Your task to perform on an android device: refresh tabs in the chrome app Image 0: 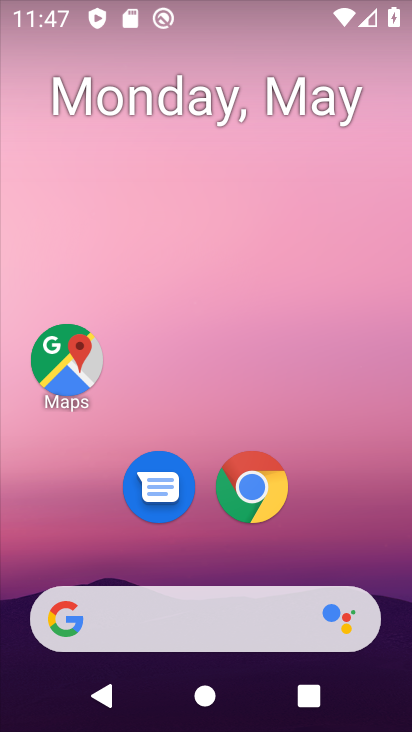
Step 0: click (261, 497)
Your task to perform on an android device: refresh tabs in the chrome app Image 1: 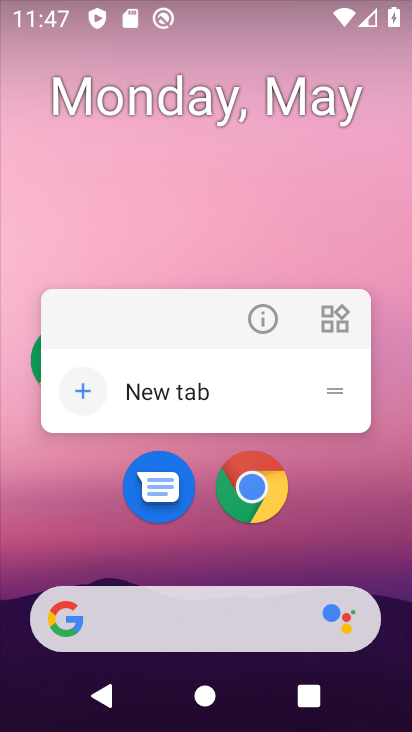
Step 1: click (256, 494)
Your task to perform on an android device: refresh tabs in the chrome app Image 2: 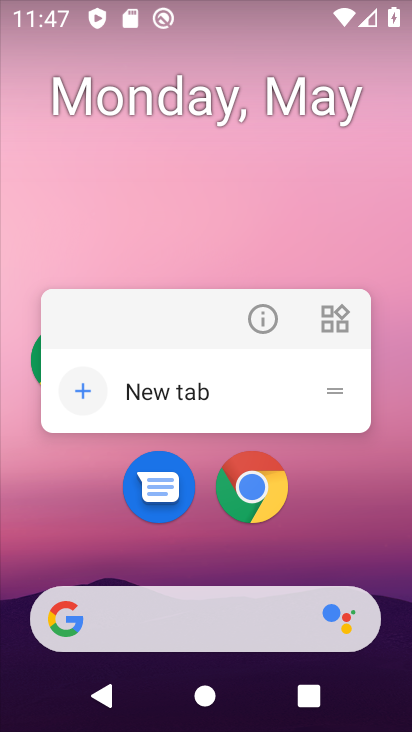
Step 2: click (274, 471)
Your task to perform on an android device: refresh tabs in the chrome app Image 3: 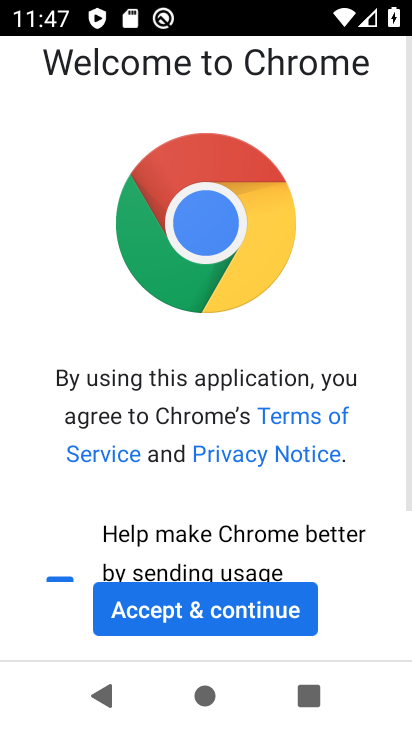
Step 3: click (239, 600)
Your task to perform on an android device: refresh tabs in the chrome app Image 4: 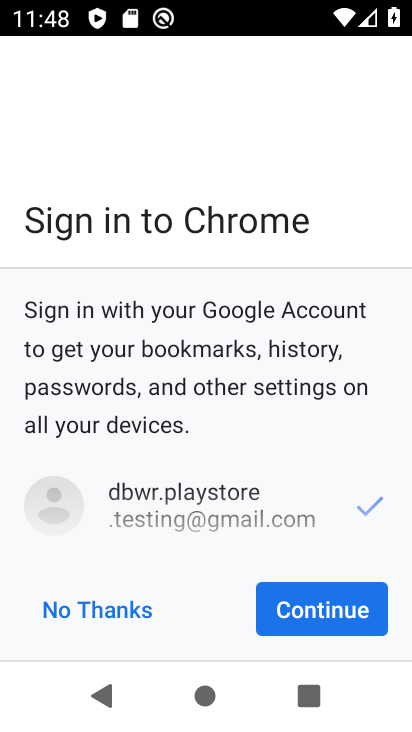
Step 4: click (314, 615)
Your task to perform on an android device: refresh tabs in the chrome app Image 5: 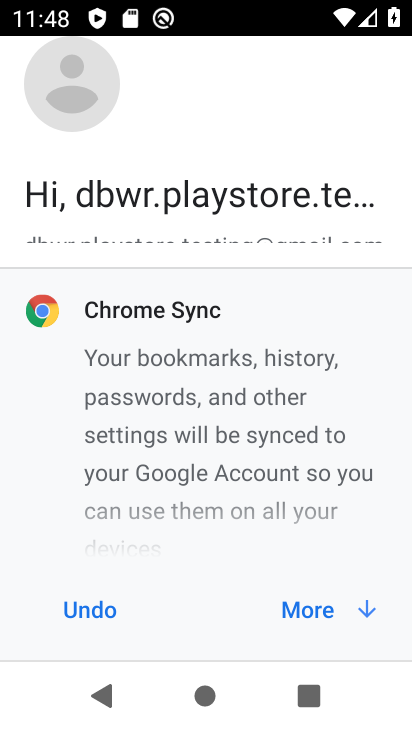
Step 5: click (314, 615)
Your task to perform on an android device: refresh tabs in the chrome app Image 6: 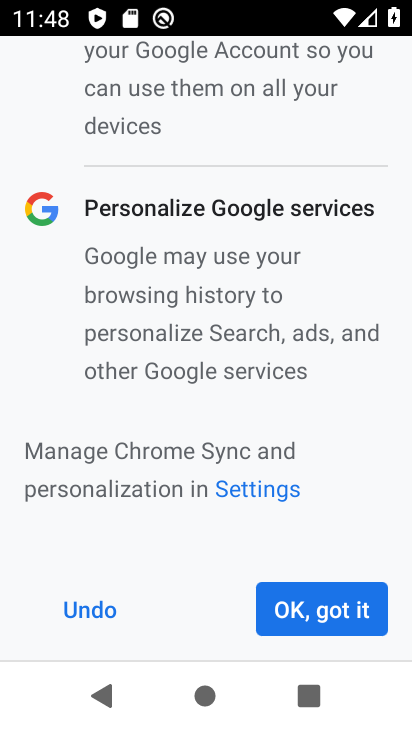
Step 6: click (314, 615)
Your task to perform on an android device: refresh tabs in the chrome app Image 7: 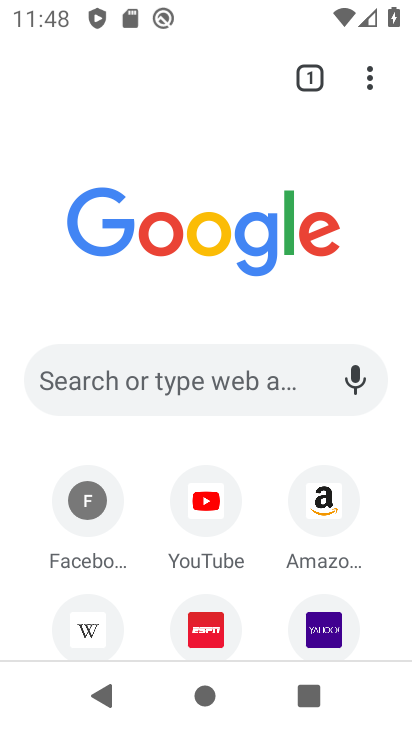
Step 7: click (369, 72)
Your task to perform on an android device: refresh tabs in the chrome app Image 8: 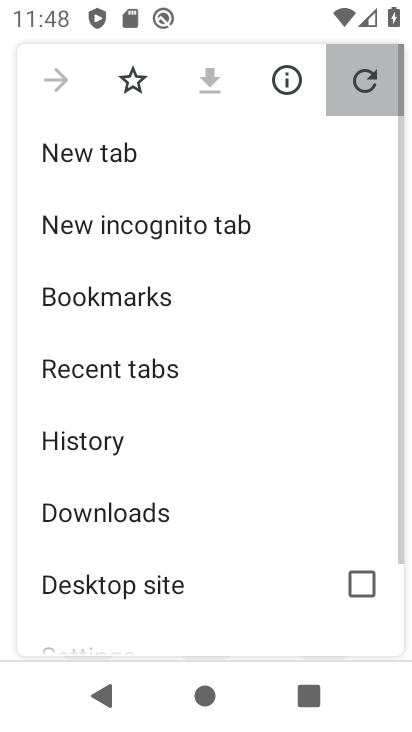
Step 8: click (370, 72)
Your task to perform on an android device: refresh tabs in the chrome app Image 9: 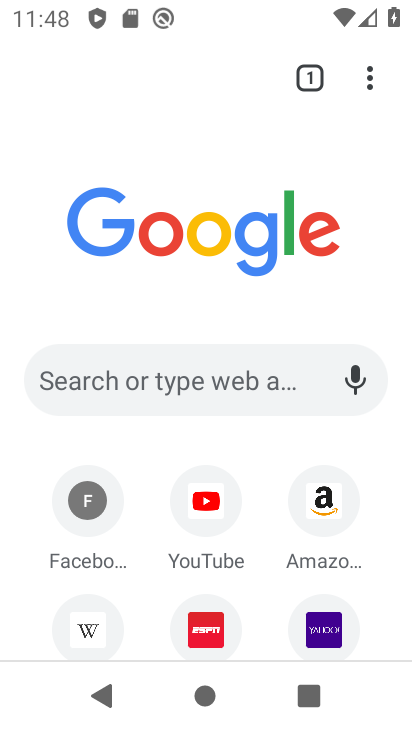
Step 9: task complete